Your task to perform on an android device: Open maps Image 0: 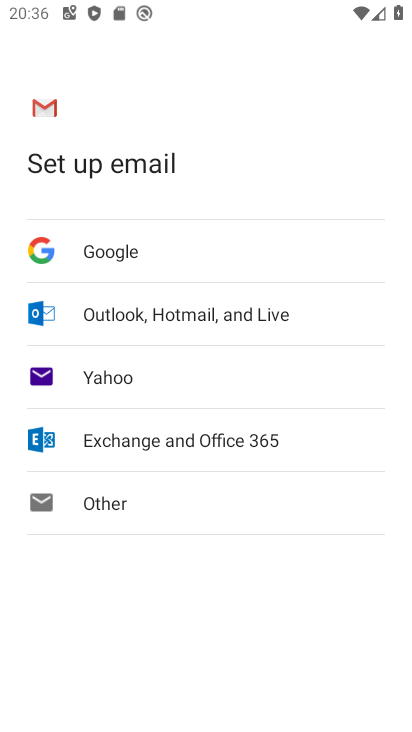
Step 0: press home button
Your task to perform on an android device: Open maps Image 1: 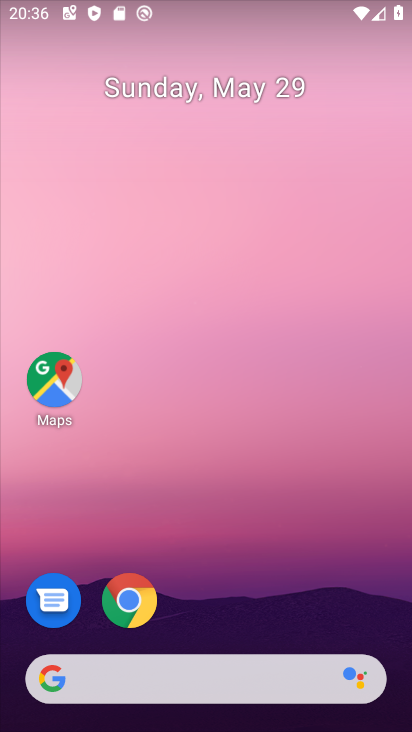
Step 1: drag from (318, 551) to (320, 119)
Your task to perform on an android device: Open maps Image 2: 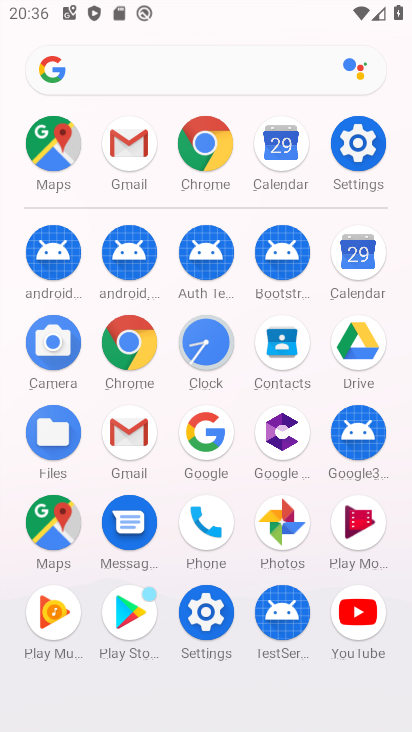
Step 2: click (44, 537)
Your task to perform on an android device: Open maps Image 3: 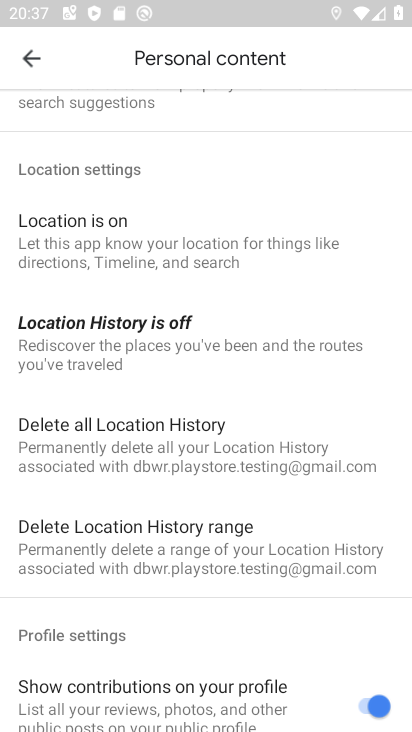
Step 3: drag from (224, 594) to (245, 416)
Your task to perform on an android device: Open maps Image 4: 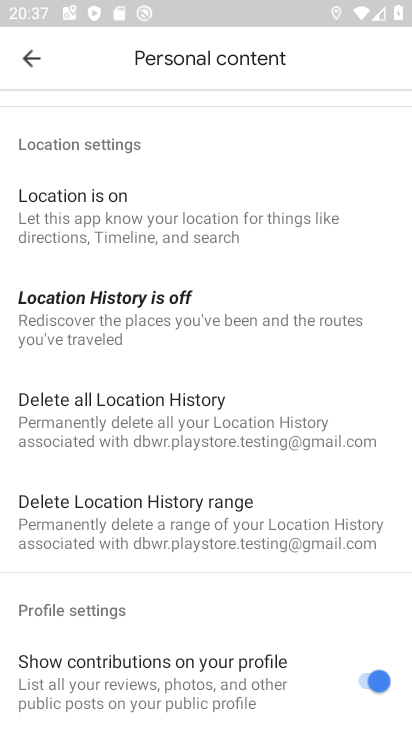
Step 4: click (30, 67)
Your task to perform on an android device: Open maps Image 5: 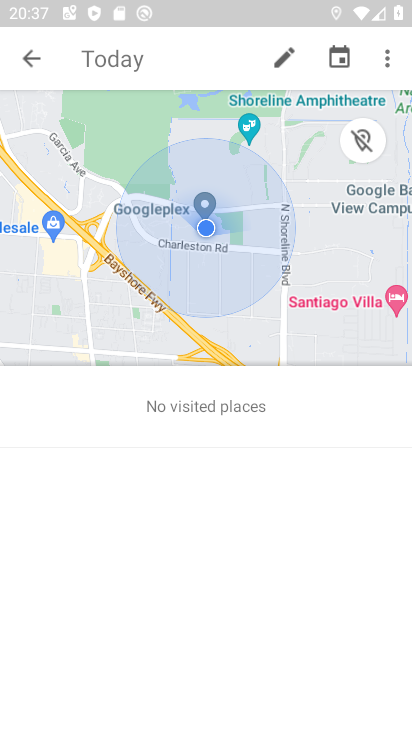
Step 5: task complete